Your task to perform on an android device: turn notification dots off Image 0: 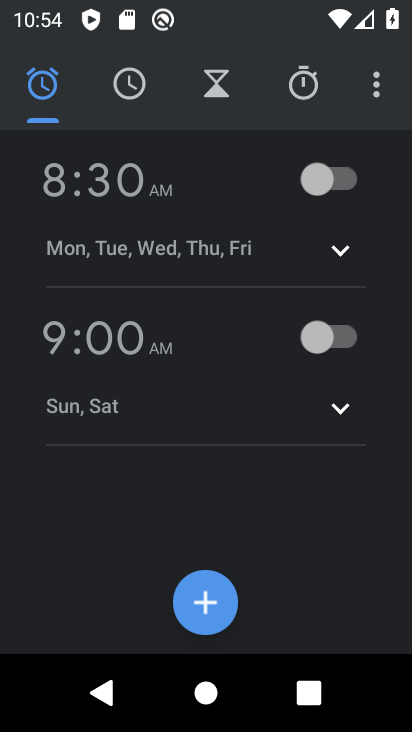
Step 0: press home button
Your task to perform on an android device: turn notification dots off Image 1: 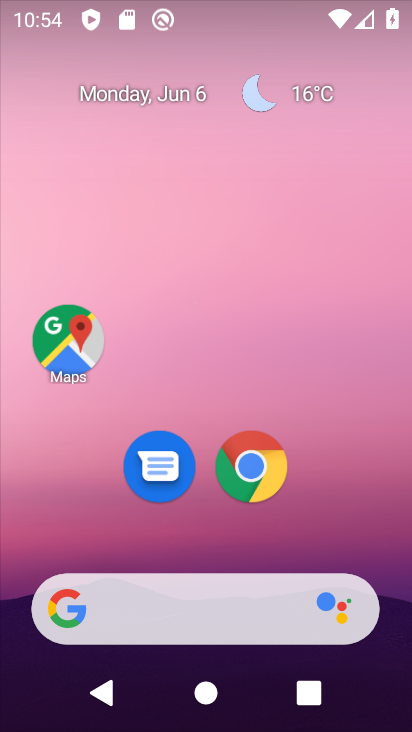
Step 1: drag from (279, 523) to (241, 64)
Your task to perform on an android device: turn notification dots off Image 2: 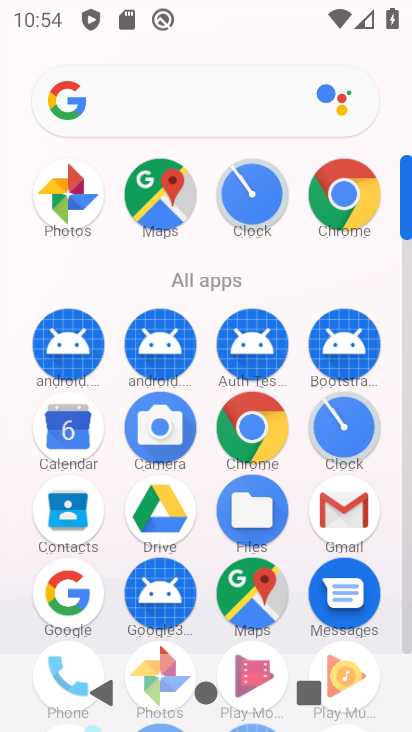
Step 2: click (407, 574)
Your task to perform on an android device: turn notification dots off Image 3: 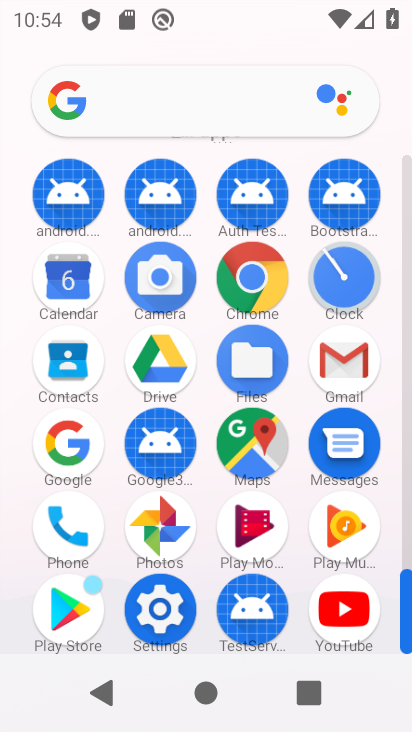
Step 3: click (135, 615)
Your task to perform on an android device: turn notification dots off Image 4: 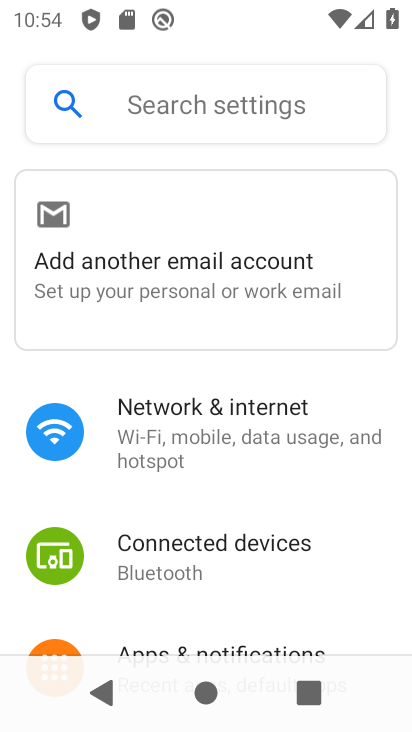
Step 4: drag from (203, 551) to (206, 166)
Your task to perform on an android device: turn notification dots off Image 5: 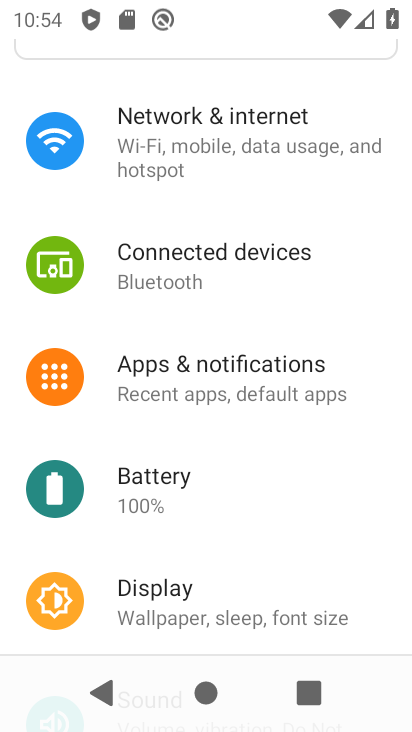
Step 5: drag from (293, 510) to (265, 332)
Your task to perform on an android device: turn notification dots off Image 6: 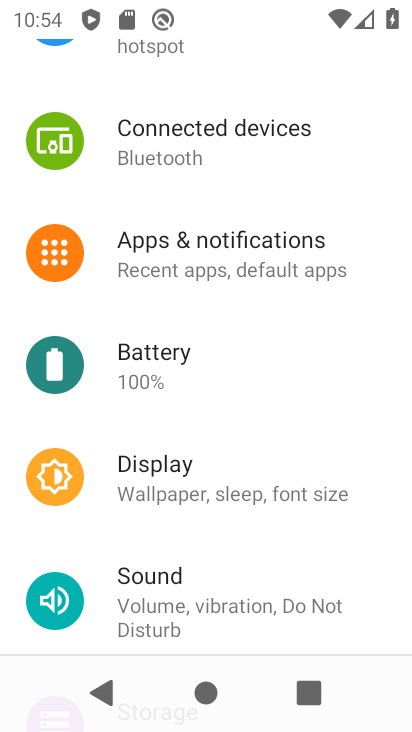
Step 6: click (258, 255)
Your task to perform on an android device: turn notification dots off Image 7: 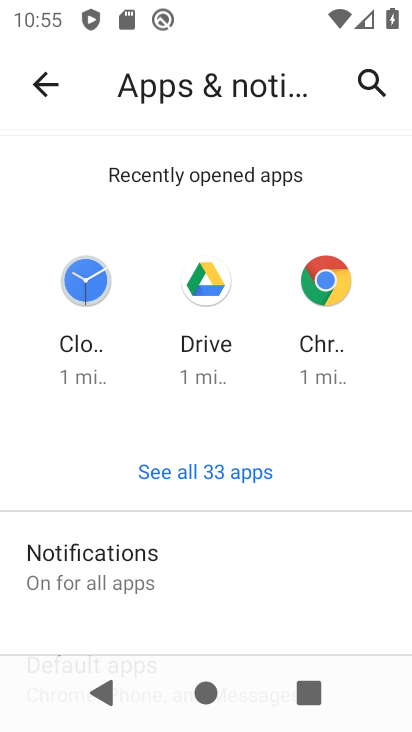
Step 7: click (92, 603)
Your task to perform on an android device: turn notification dots off Image 8: 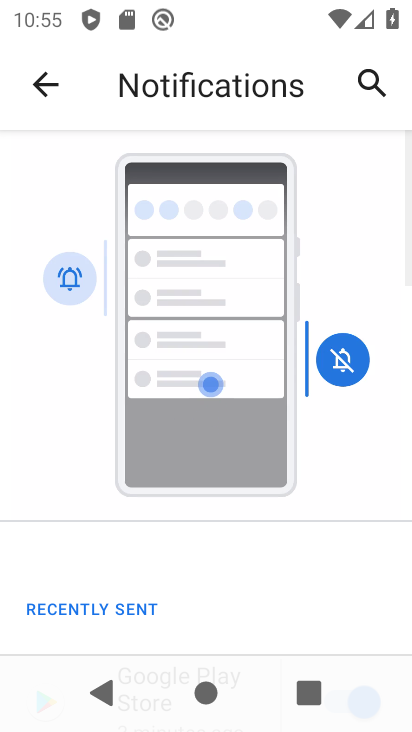
Step 8: drag from (209, 603) to (228, 441)
Your task to perform on an android device: turn notification dots off Image 9: 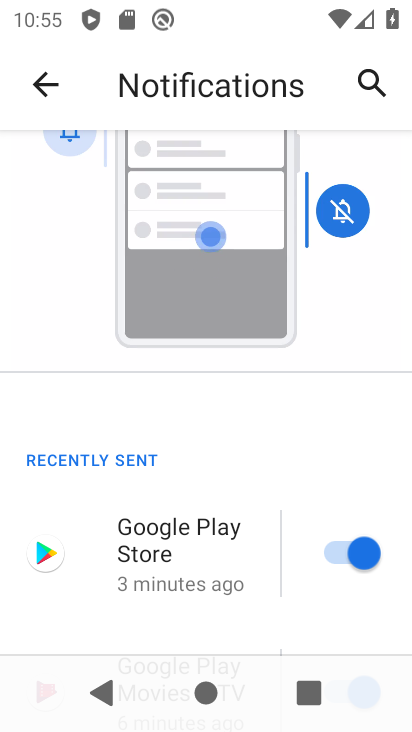
Step 9: drag from (173, 661) to (169, 404)
Your task to perform on an android device: turn notification dots off Image 10: 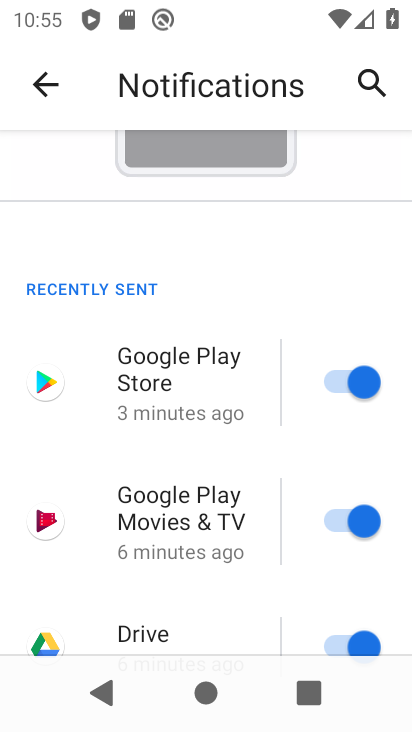
Step 10: drag from (167, 537) to (166, 312)
Your task to perform on an android device: turn notification dots off Image 11: 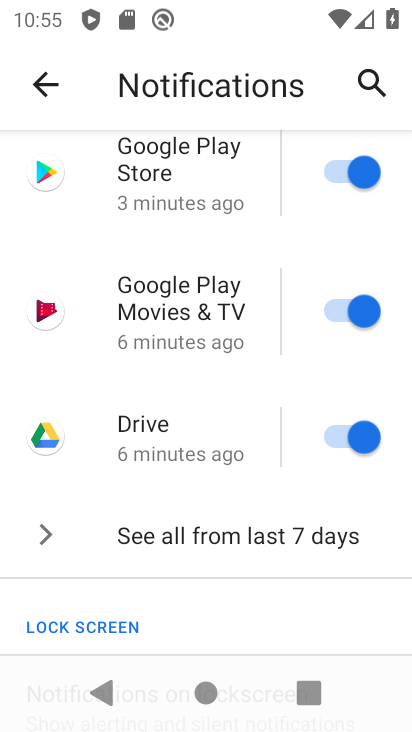
Step 11: drag from (148, 641) to (180, 454)
Your task to perform on an android device: turn notification dots off Image 12: 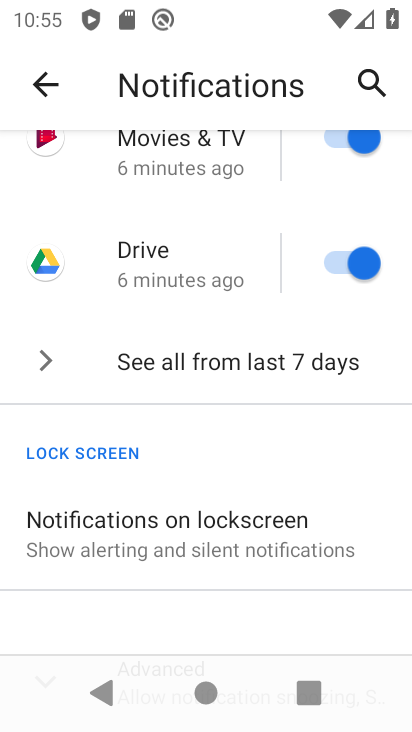
Step 12: drag from (264, 601) to (265, 232)
Your task to perform on an android device: turn notification dots off Image 13: 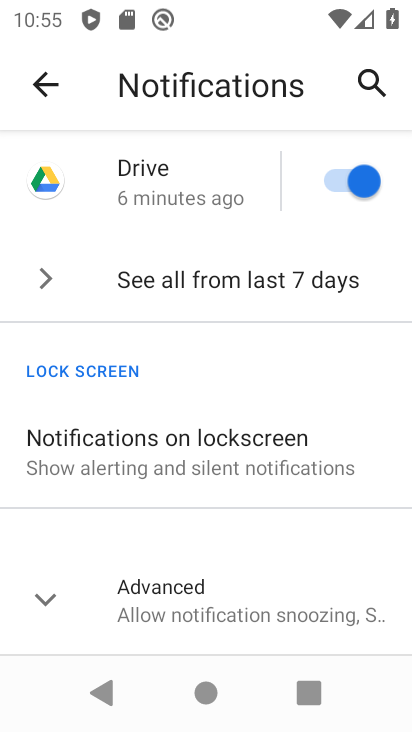
Step 13: click (136, 622)
Your task to perform on an android device: turn notification dots off Image 14: 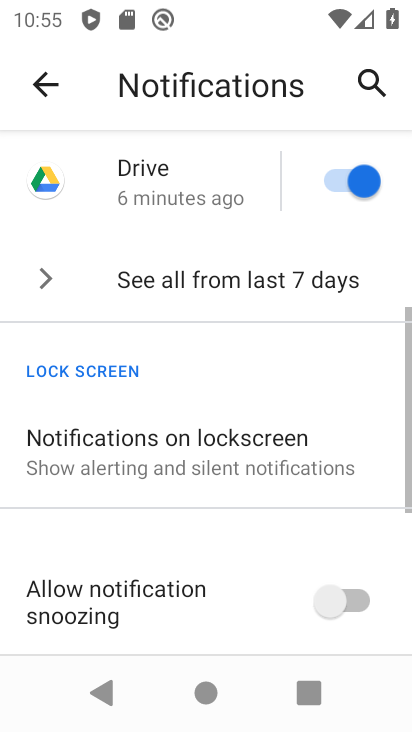
Step 14: drag from (136, 622) to (183, 410)
Your task to perform on an android device: turn notification dots off Image 15: 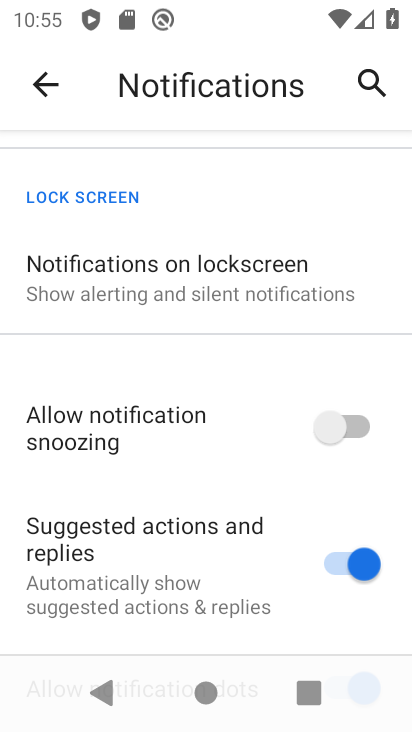
Step 15: drag from (177, 579) to (150, 398)
Your task to perform on an android device: turn notification dots off Image 16: 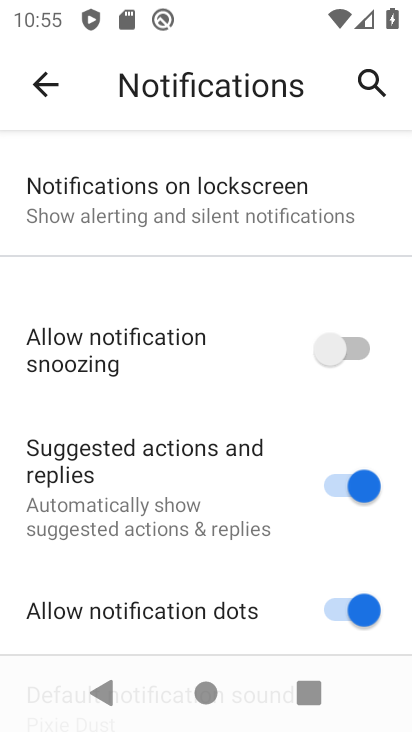
Step 16: drag from (120, 529) to (117, 466)
Your task to perform on an android device: turn notification dots off Image 17: 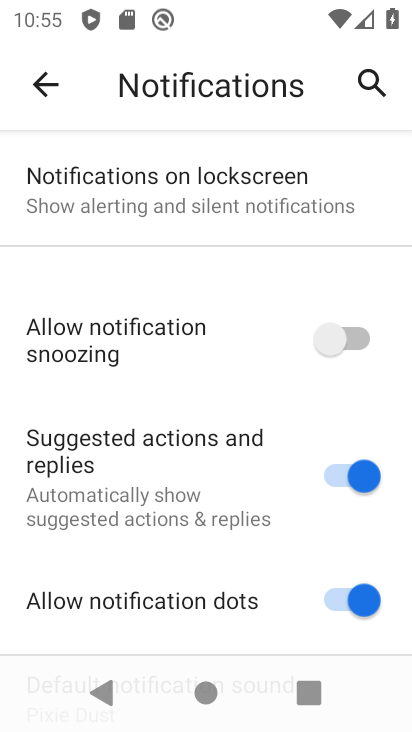
Step 17: drag from (207, 627) to (225, 490)
Your task to perform on an android device: turn notification dots off Image 18: 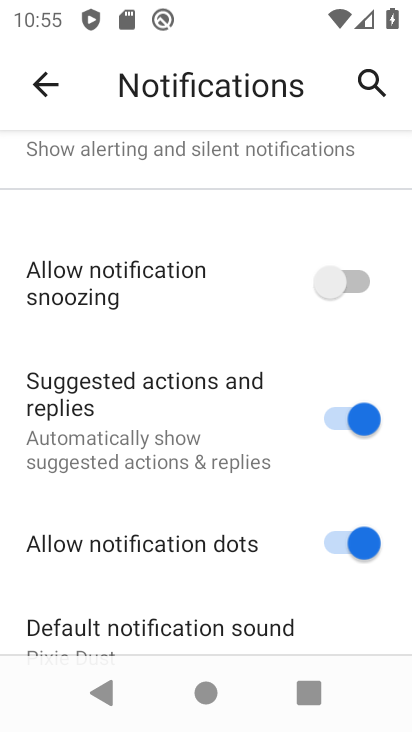
Step 18: click (190, 547)
Your task to perform on an android device: turn notification dots off Image 19: 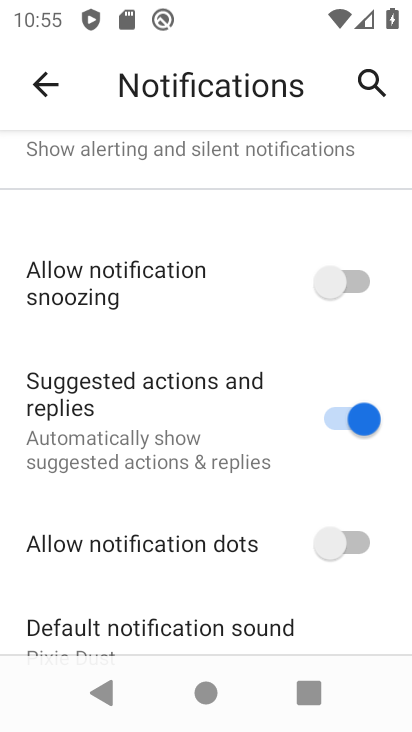
Step 19: task complete